Your task to perform on an android device: toggle sleep mode Image 0: 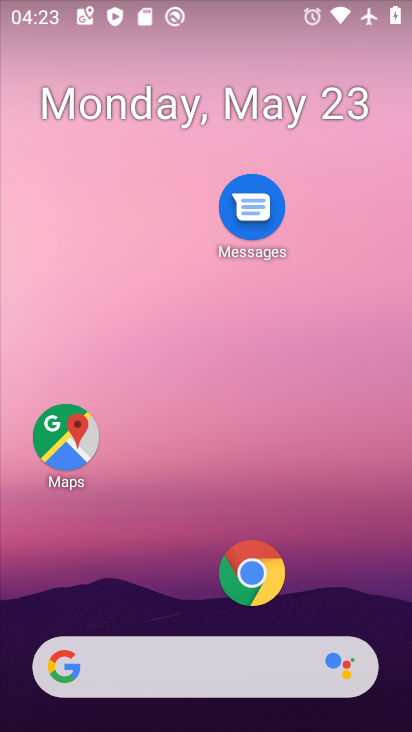
Step 0: drag from (314, 639) to (290, 37)
Your task to perform on an android device: toggle sleep mode Image 1: 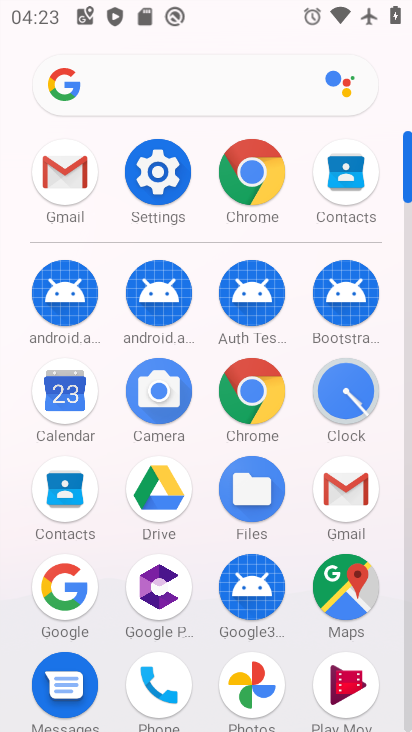
Step 1: click (146, 180)
Your task to perform on an android device: toggle sleep mode Image 2: 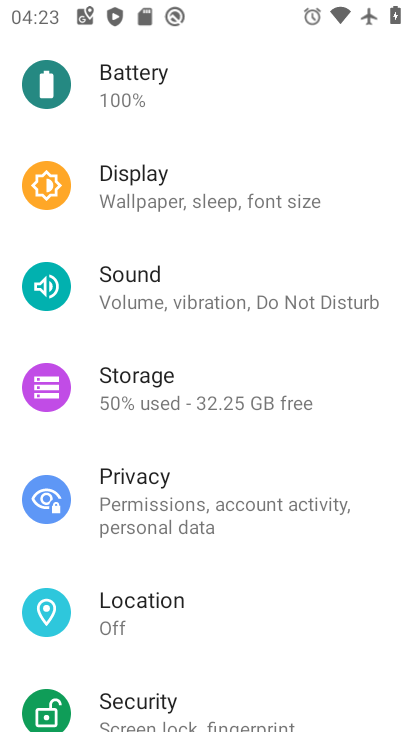
Step 2: drag from (214, 150) to (183, 715)
Your task to perform on an android device: toggle sleep mode Image 3: 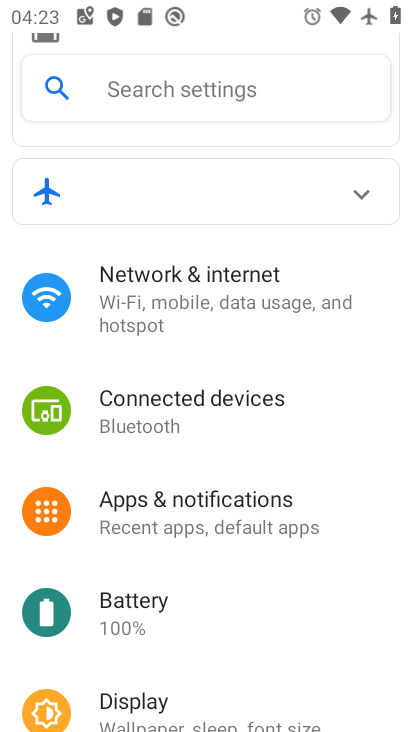
Step 3: click (205, 317)
Your task to perform on an android device: toggle sleep mode Image 4: 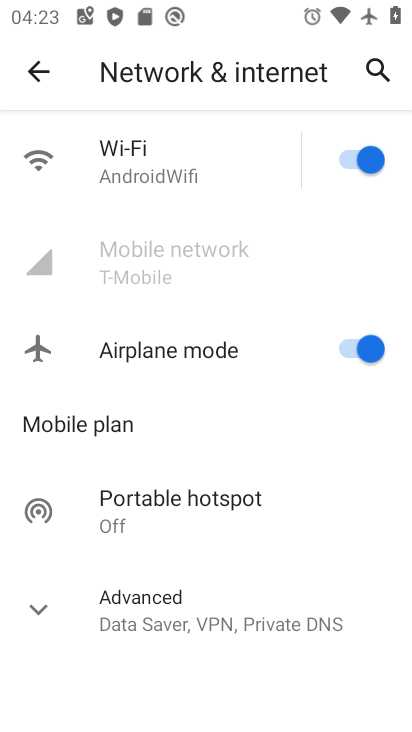
Step 4: press back button
Your task to perform on an android device: toggle sleep mode Image 5: 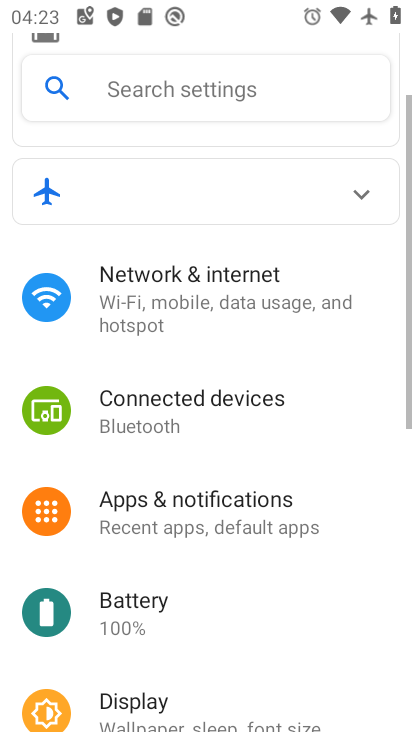
Step 5: drag from (267, 663) to (281, 111)
Your task to perform on an android device: toggle sleep mode Image 6: 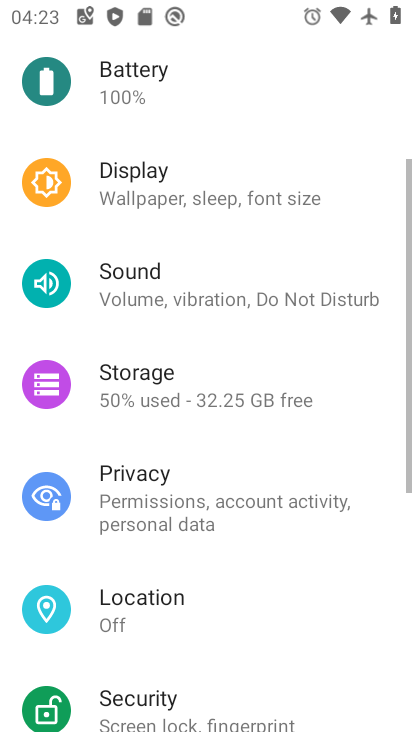
Step 6: click (231, 194)
Your task to perform on an android device: toggle sleep mode Image 7: 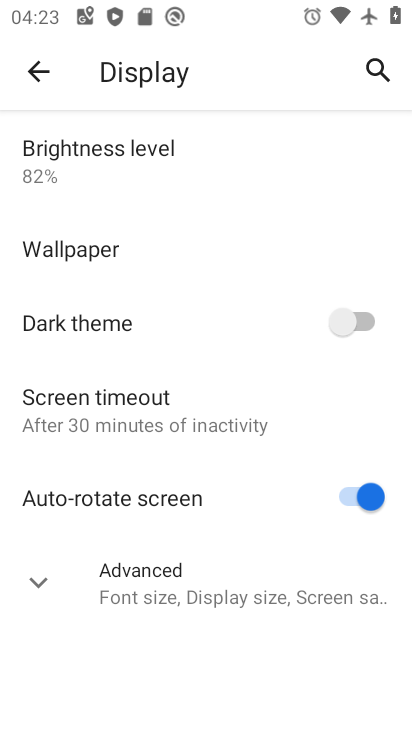
Step 7: task complete